Your task to perform on an android device: toggle priority inbox in the gmail app Image 0: 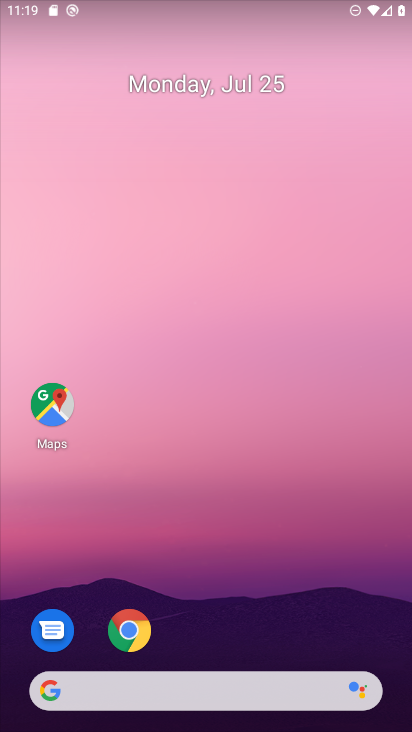
Step 0: drag from (259, 649) to (268, 18)
Your task to perform on an android device: toggle priority inbox in the gmail app Image 1: 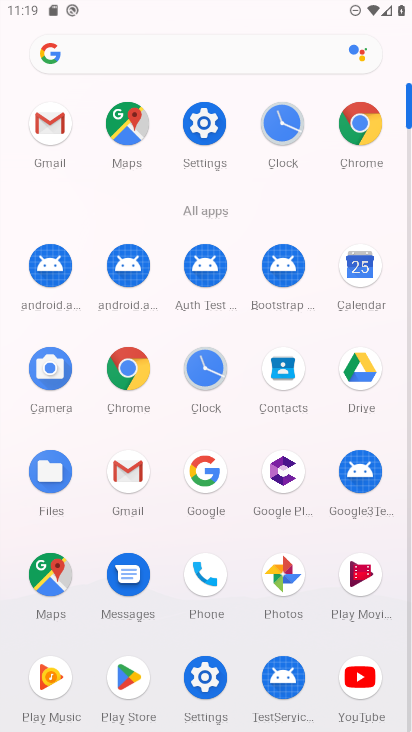
Step 1: click (51, 138)
Your task to perform on an android device: toggle priority inbox in the gmail app Image 2: 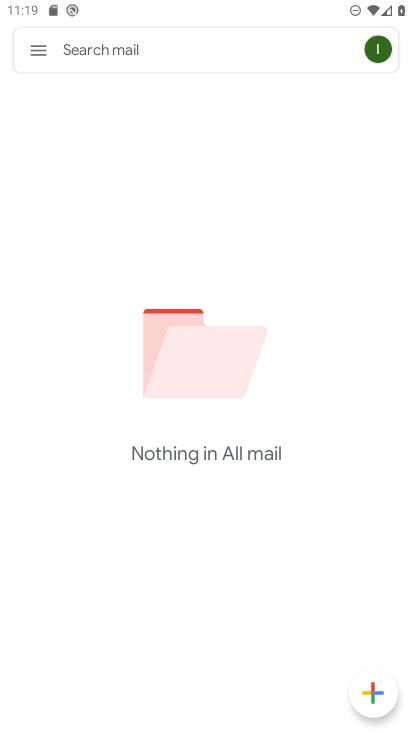
Step 2: click (40, 52)
Your task to perform on an android device: toggle priority inbox in the gmail app Image 3: 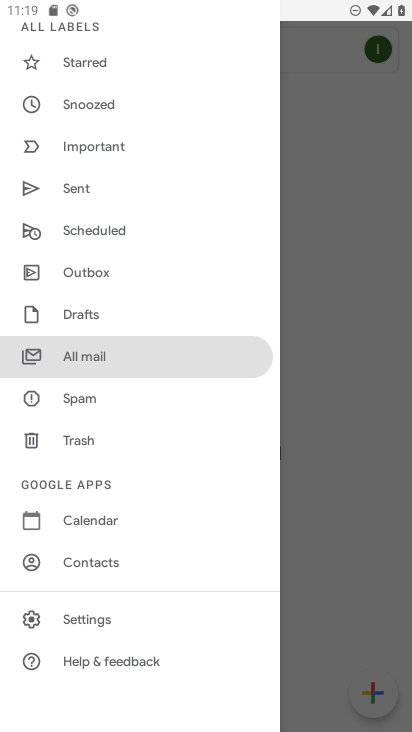
Step 3: click (73, 616)
Your task to perform on an android device: toggle priority inbox in the gmail app Image 4: 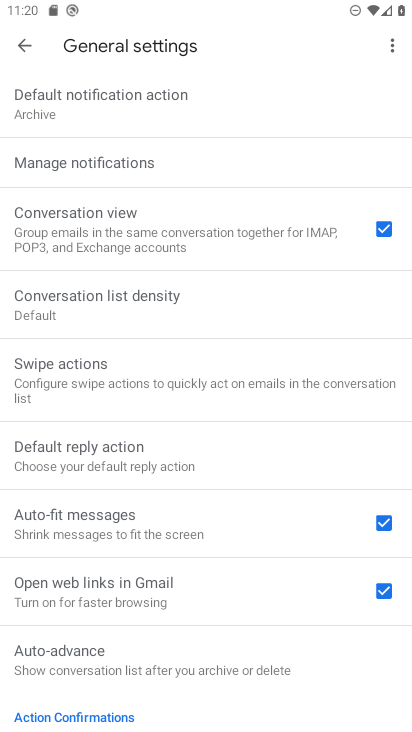
Step 4: click (21, 47)
Your task to perform on an android device: toggle priority inbox in the gmail app Image 5: 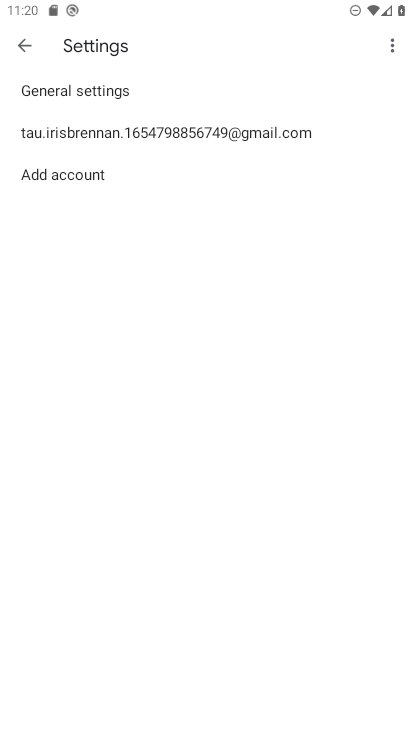
Step 5: click (42, 129)
Your task to perform on an android device: toggle priority inbox in the gmail app Image 6: 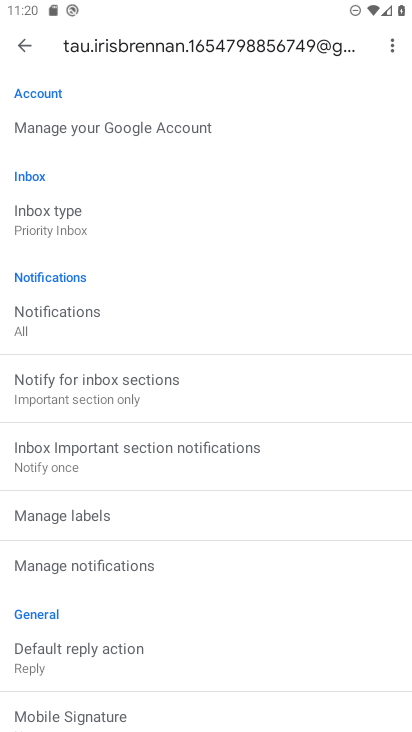
Step 6: click (50, 228)
Your task to perform on an android device: toggle priority inbox in the gmail app Image 7: 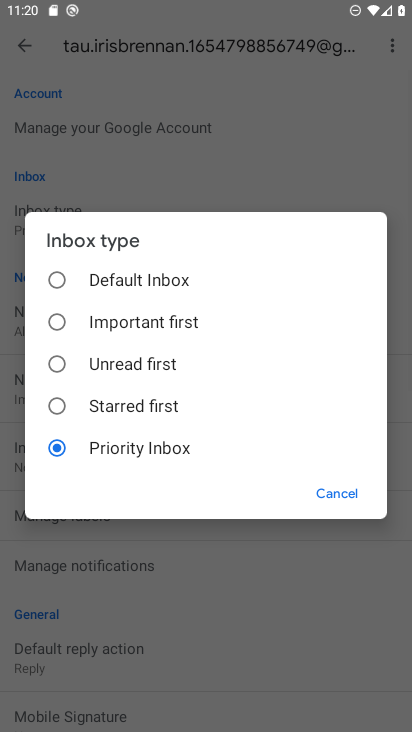
Step 7: click (50, 275)
Your task to perform on an android device: toggle priority inbox in the gmail app Image 8: 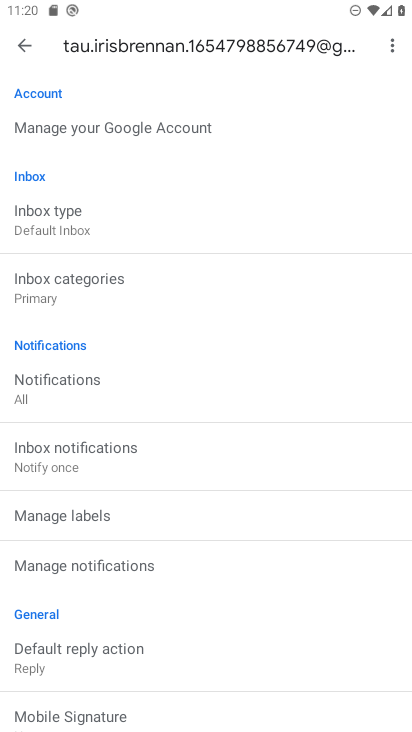
Step 8: task complete